Your task to perform on an android device: Open Maps and search for coffee Image 0: 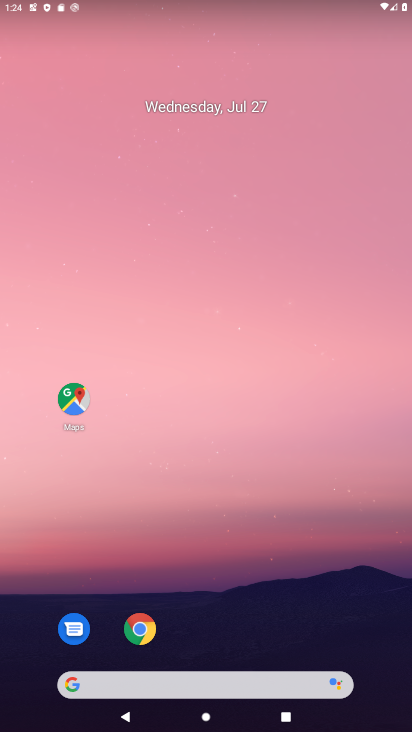
Step 0: click (71, 402)
Your task to perform on an android device: Open Maps and search for coffee Image 1: 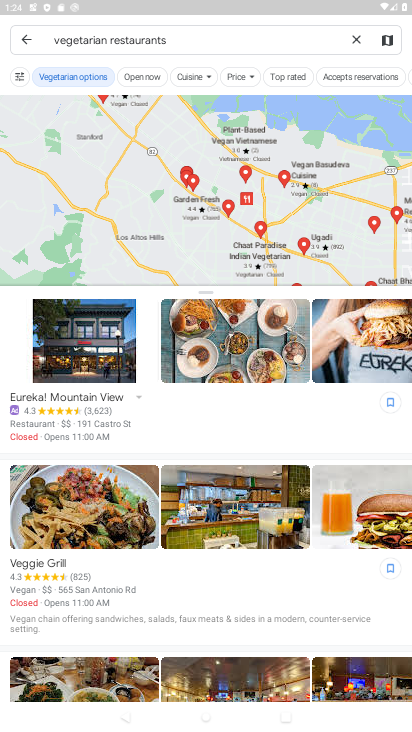
Step 1: click (352, 35)
Your task to perform on an android device: Open Maps and search for coffee Image 2: 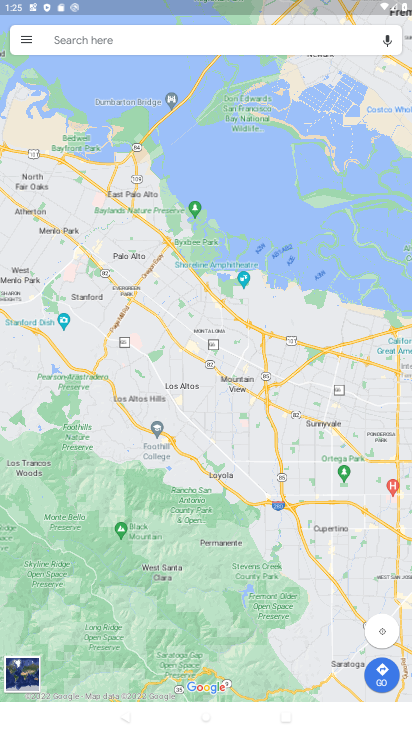
Step 2: click (270, 30)
Your task to perform on an android device: Open Maps and search for coffee Image 3: 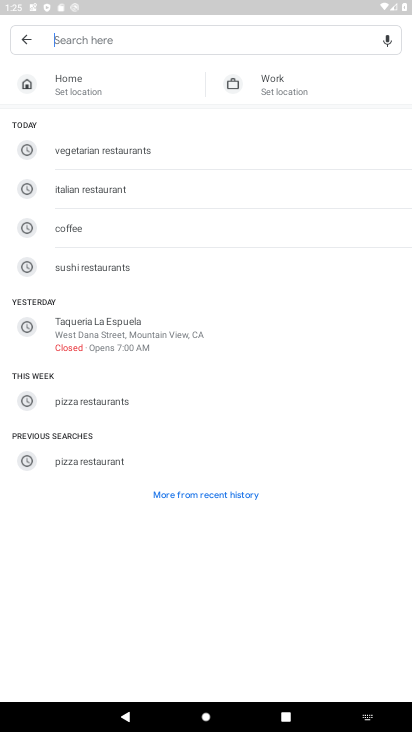
Step 3: click (202, 224)
Your task to perform on an android device: Open Maps and search for coffee Image 4: 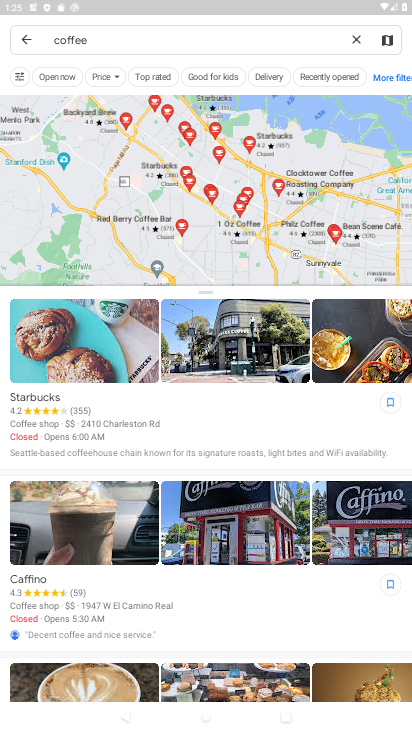
Step 4: task complete